Your task to perform on an android device: turn notification dots on Image 0: 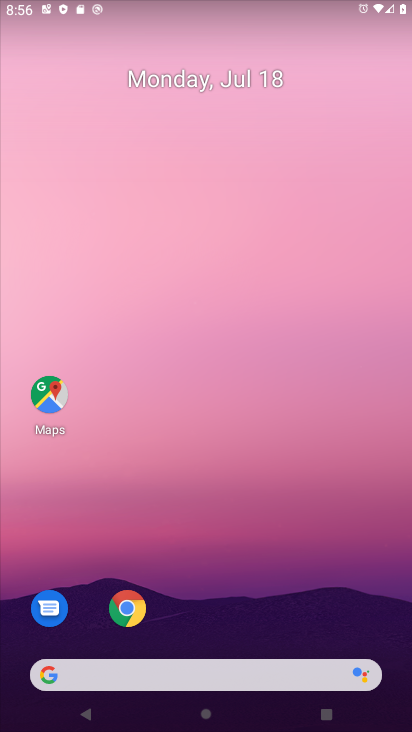
Step 0: drag from (250, 719) to (261, 98)
Your task to perform on an android device: turn notification dots on Image 1: 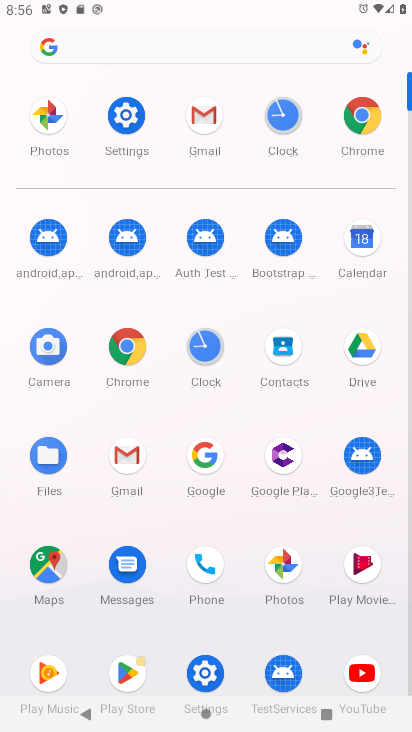
Step 1: click (126, 116)
Your task to perform on an android device: turn notification dots on Image 2: 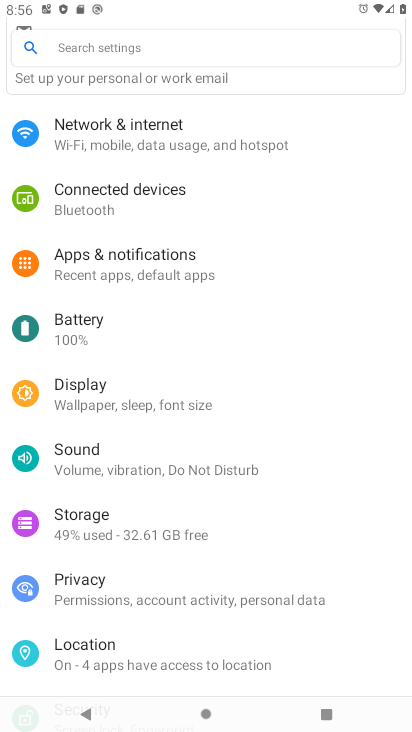
Step 2: click (129, 268)
Your task to perform on an android device: turn notification dots on Image 3: 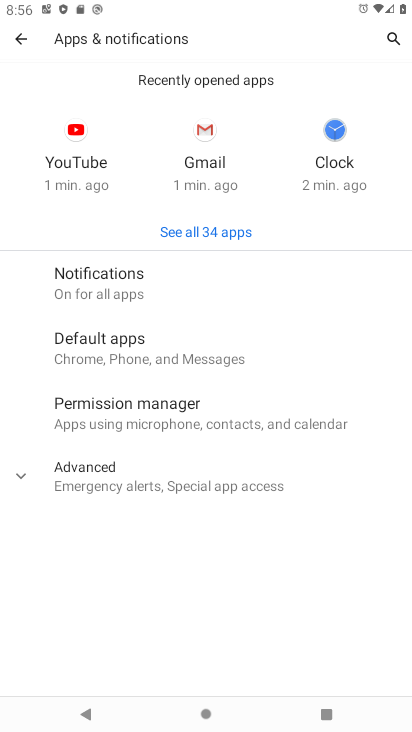
Step 3: click (84, 285)
Your task to perform on an android device: turn notification dots on Image 4: 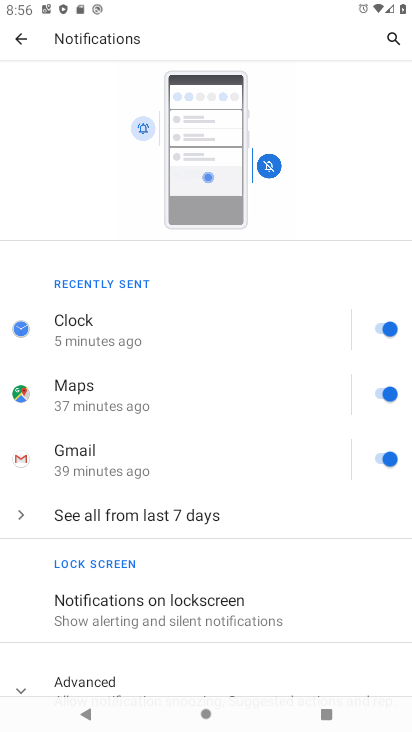
Step 4: drag from (214, 655) to (210, 288)
Your task to perform on an android device: turn notification dots on Image 5: 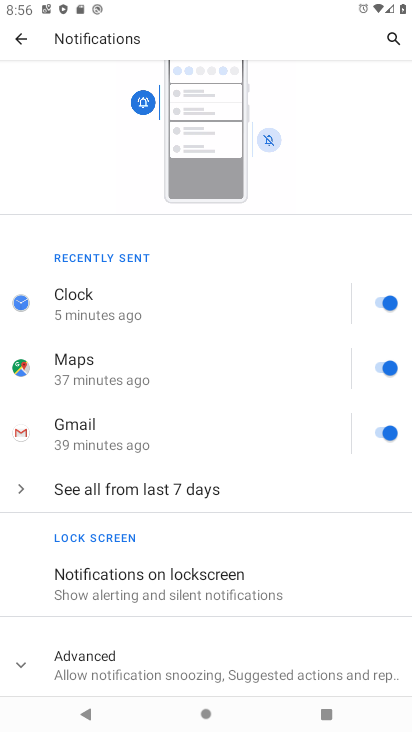
Step 5: click (139, 671)
Your task to perform on an android device: turn notification dots on Image 6: 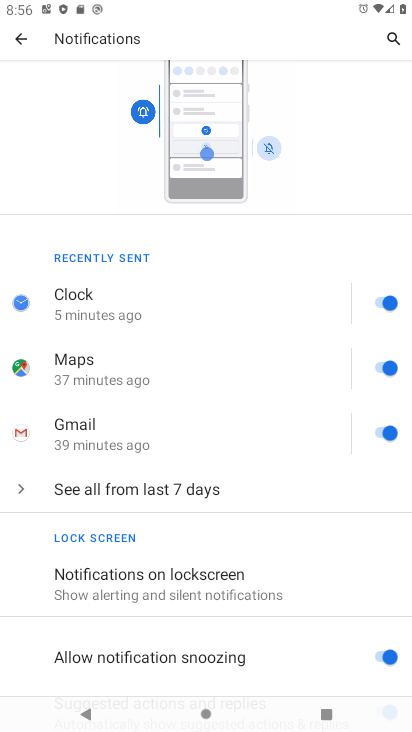
Step 6: task complete